Your task to perform on an android device: Go to calendar. Show me events next week Image 0: 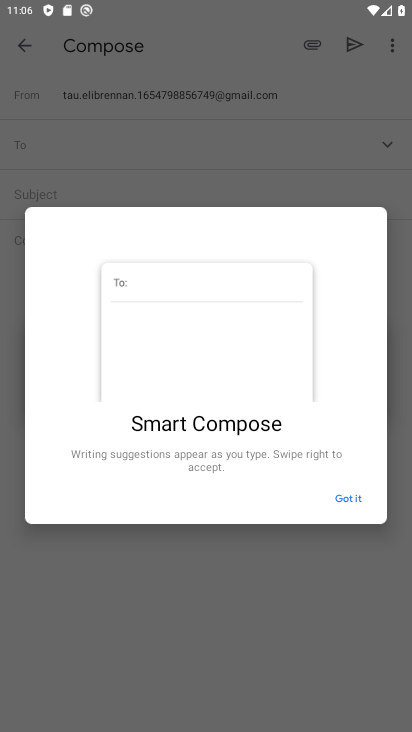
Step 0: press home button
Your task to perform on an android device: Go to calendar. Show me events next week Image 1: 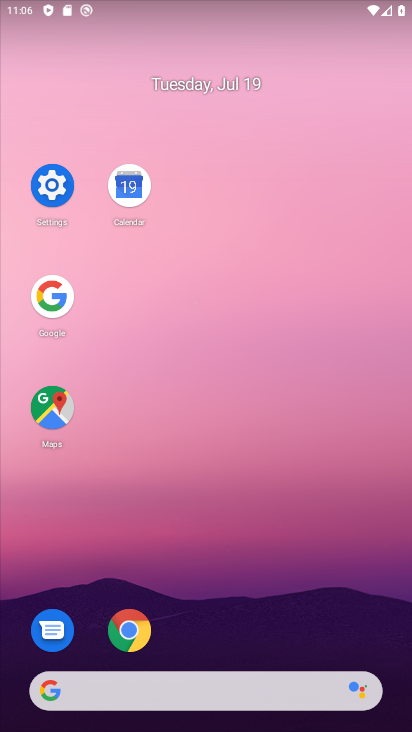
Step 1: click (132, 186)
Your task to perform on an android device: Go to calendar. Show me events next week Image 2: 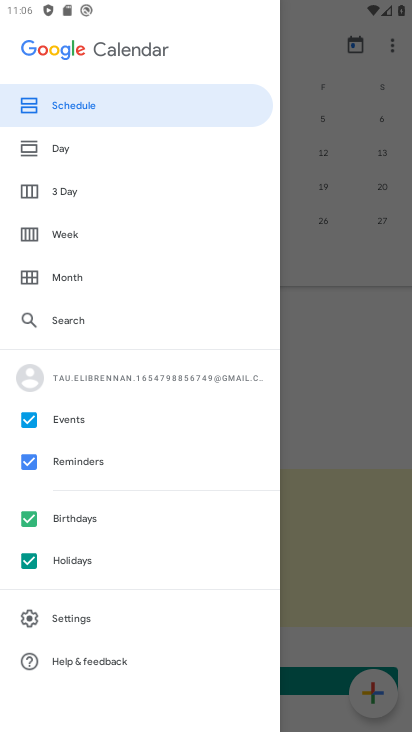
Step 2: click (358, 402)
Your task to perform on an android device: Go to calendar. Show me events next week Image 3: 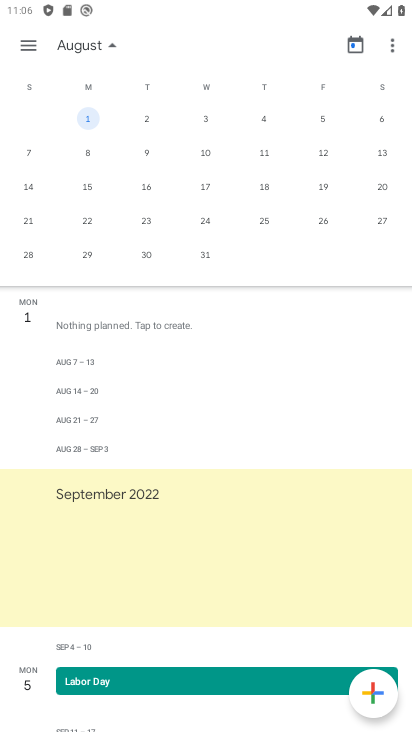
Step 3: click (82, 46)
Your task to perform on an android device: Go to calendar. Show me events next week Image 4: 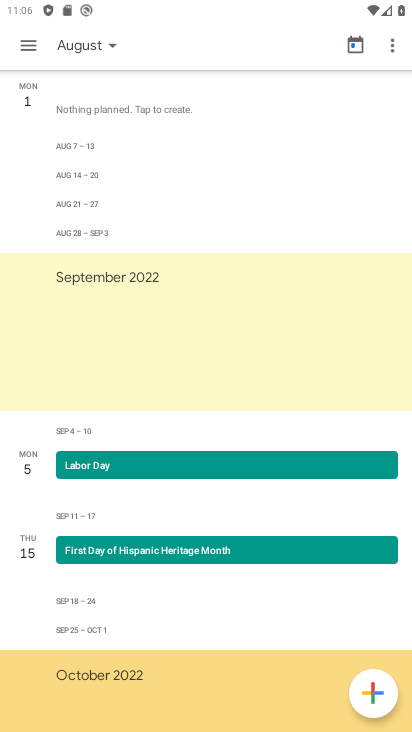
Step 4: click (82, 46)
Your task to perform on an android device: Go to calendar. Show me events next week Image 5: 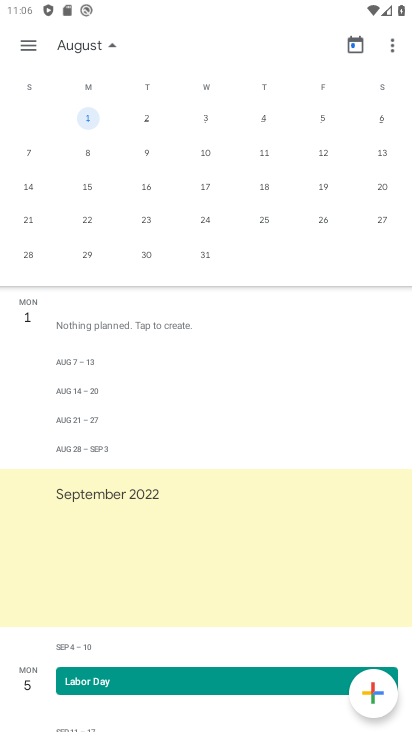
Step 5: drag from (44, 163) to (411, 181)
Your task to perform on an android device: Go to calendar. Show me events next week Image 6: 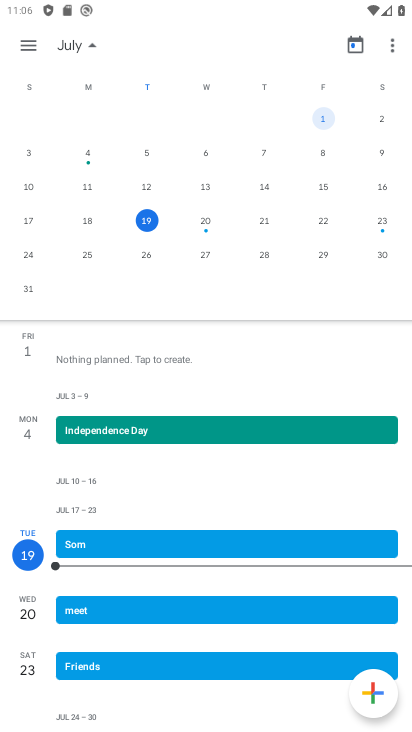
Step 6: click (29, 32)
Your task to perform on an android device: Go to calendar. Show me events next week Image 7: 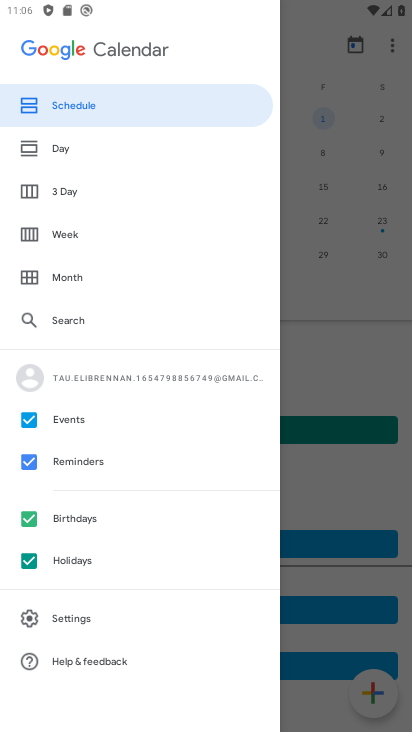
Step 7: click (94, 227)
Your task to perform on an android device: Go to calendar. Show me events next week Image 8: 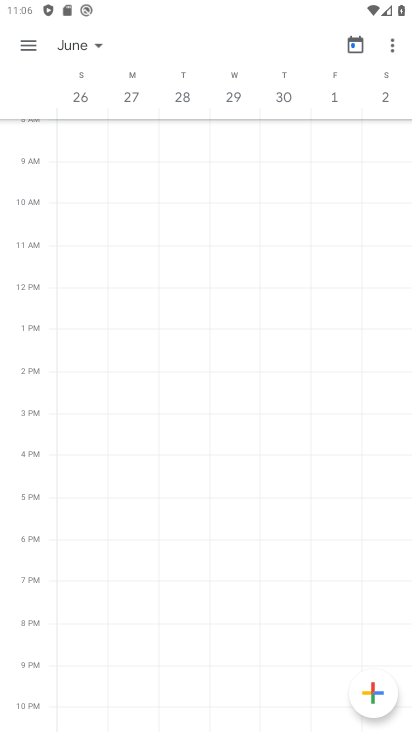
Step 8: task complete